Your task to perform on an android device: change the clock display to digital Image 0: 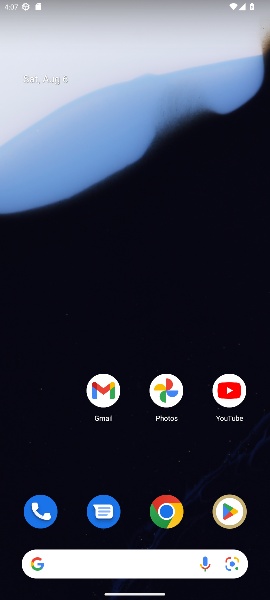
Step 0: drag from (126, 453) to (131, 16)
Your task to perform on an android device: change the clock display to digital Image 1: 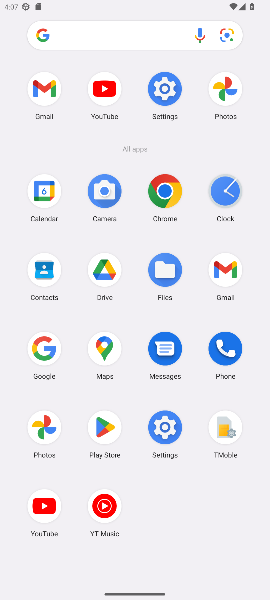
Step 1: click (230, 204)
Your task to perform on an android device: change the clock display to digital Image 2: 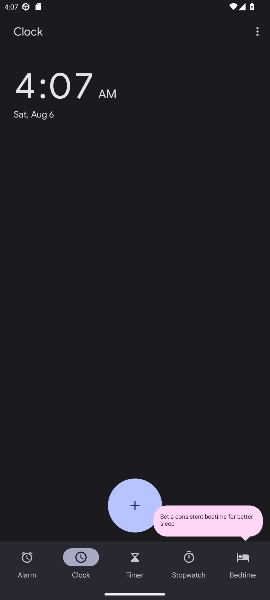
Step 2: click (253, 39)
Your task to perform on an android device: change the clock display to digital Image 3: 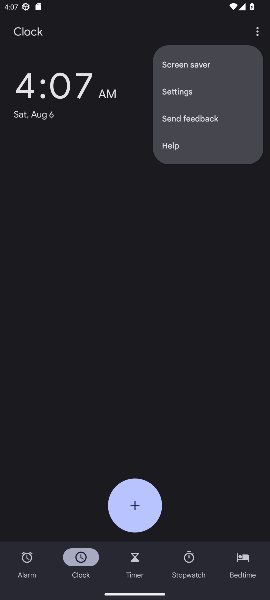
Step 3: click (174, 98)
Your task to perform on an android device: change the clock display to digital Image 4: 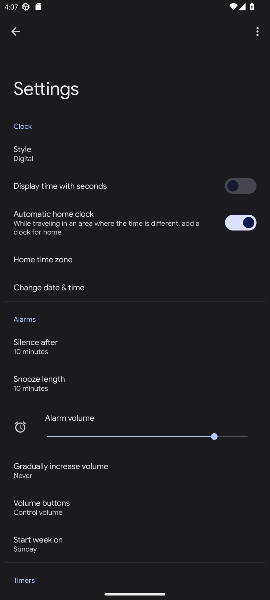
Step 4: click (36, 155)
Your task to perform on an android device: change the clock display to digital Image 5: 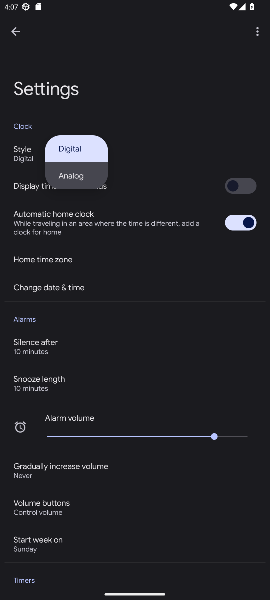
Step 5: task complete